Your task to perform on an android device: Go to settings Image 0: 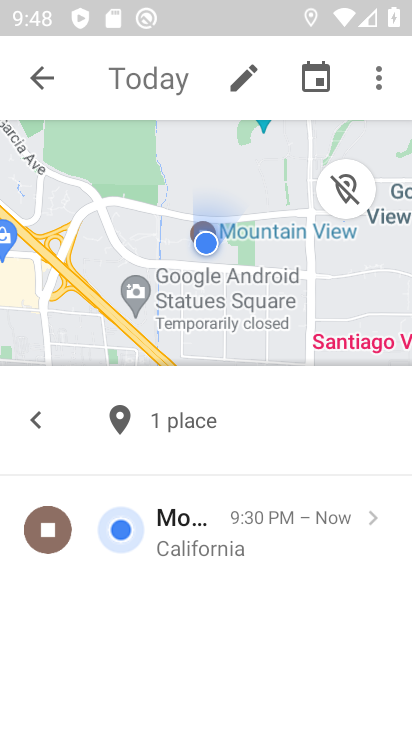
Step 0: press home button
Your task to perform on an android device: Go to settings Image 1: 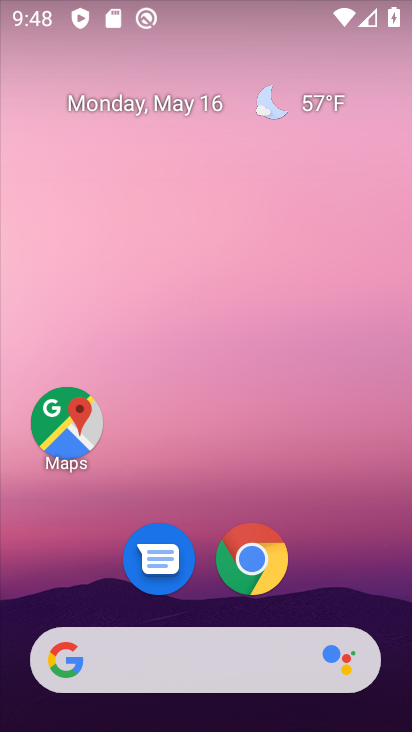
Step 1: drag from (359, 516) to (351, 69)
Your task to perform on an android device: Go to settings Image 2: 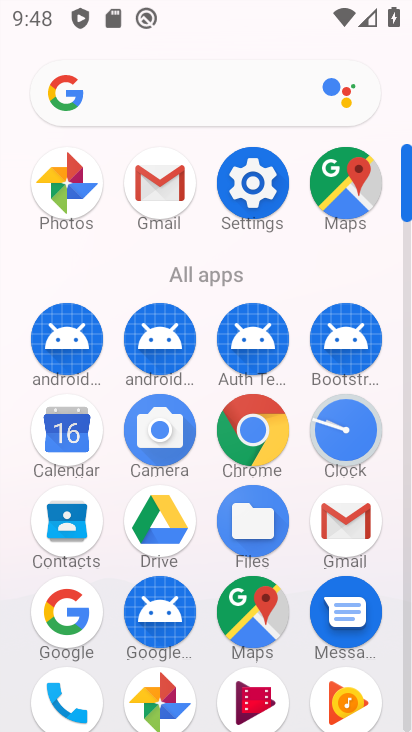
Step 2: click (271, 162)
Your task to perform on an android device: Go to settings Image 3: 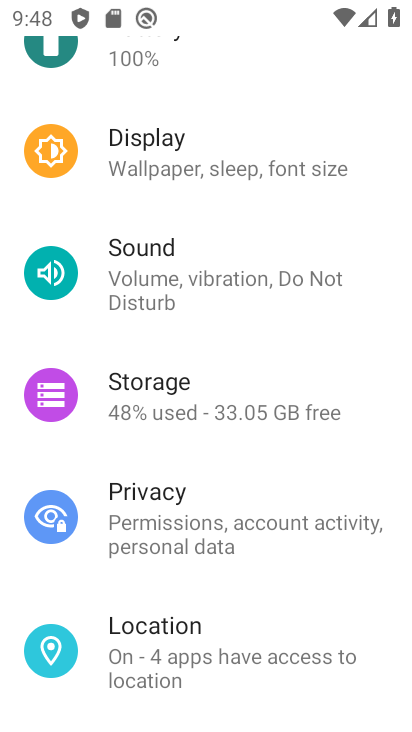
Step 3: task complete